Your task to perform on an android device: Search for sushi restaurants on Maps Image 0: 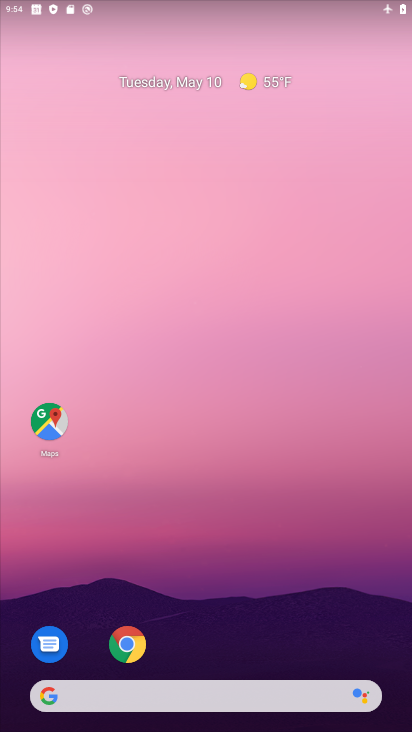
Step 0: click (49, 429)
Your task to perform on an android device: Search for sushi restaurants on Maps Image 1: 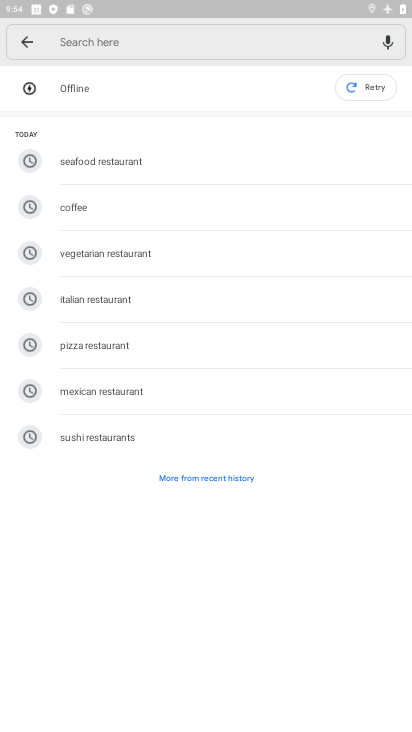
Step 1: click (132, 300)
Your task to perform on an android device: Search for sushi restaurants on Maps Image 2: 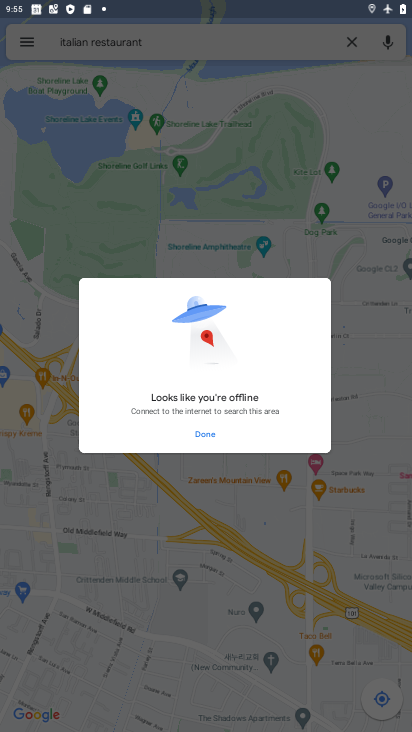
Step 2: task complete